Your task to perform on an android device: Go to Maps Image 0: 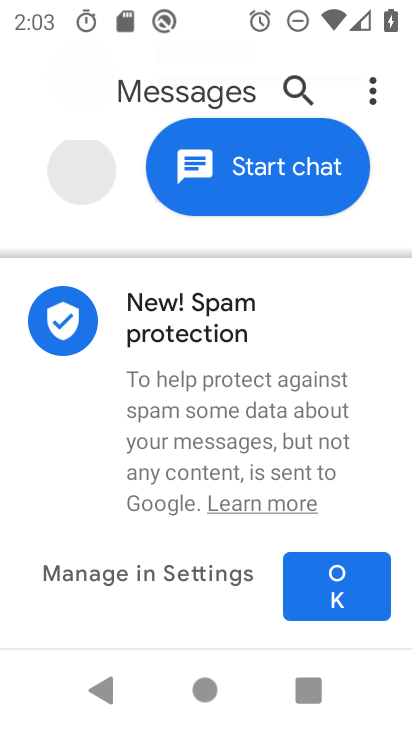
Step 0: press home button
Your task to perform on an android device: Go to Maps Image 1: 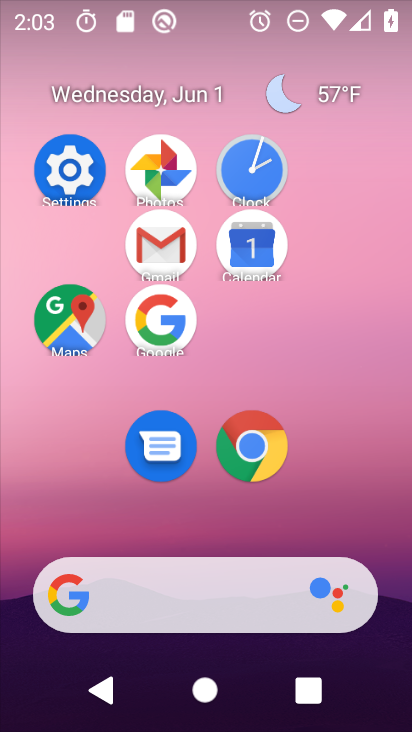
Step 1: click (84, 315)
Your task to perform on an android device: Go to Maps Image 2: 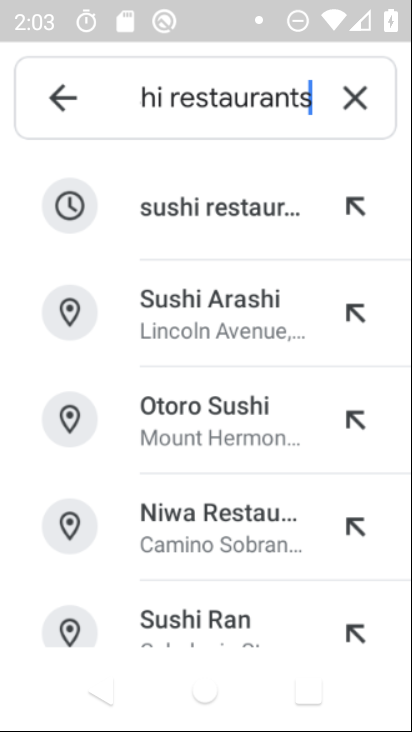
Step 2: task complete